Your task to perform on an android device: turn on priority inbox in the gmail app Image 0: 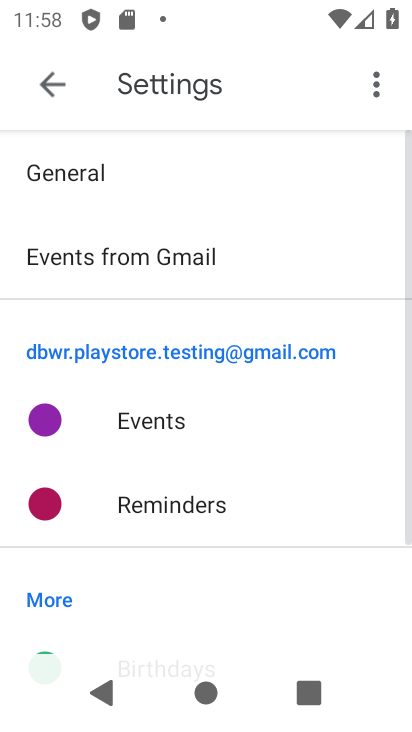
Step 0: press home button
Your task to perform on an android device: turn on priority inbox in the gmail app Image 1: 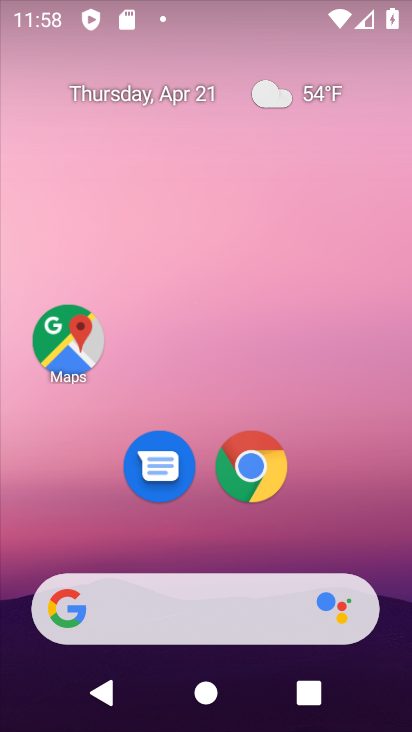
Step 1: drag from (322, 368) to (263, 61)
Your task to perform on an android device: turn on priority inbox in the gmail app Image 2: 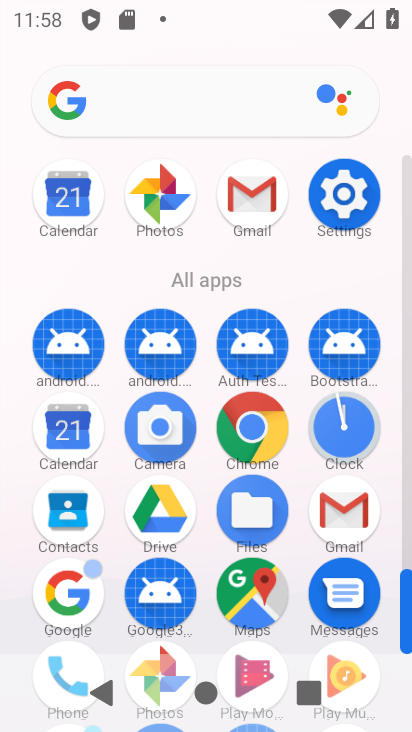
Step 2: click (265, 208)
Your task to perform on an android device: turn on priority inbox in the gmail app Image 3: 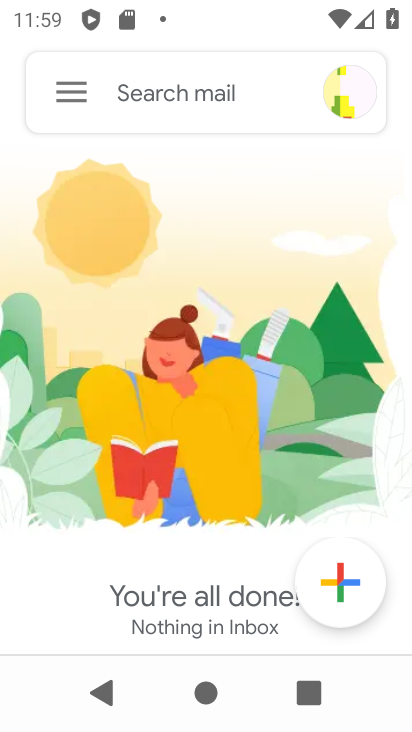
Step 3: click (75, 89)
Your task to perform on an android device: turn on priority inbox in the gmail app Image 4: 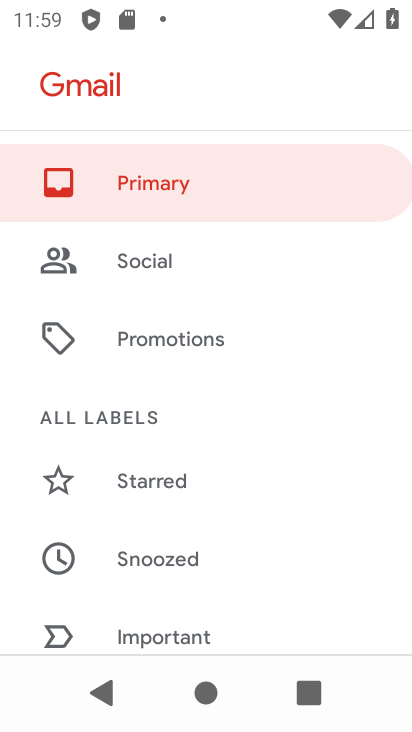
Step 4: drag from (317, 586) to (308, 69)
Your task to perform on an android device: turn on priority inbox in the gmail app Image 5: 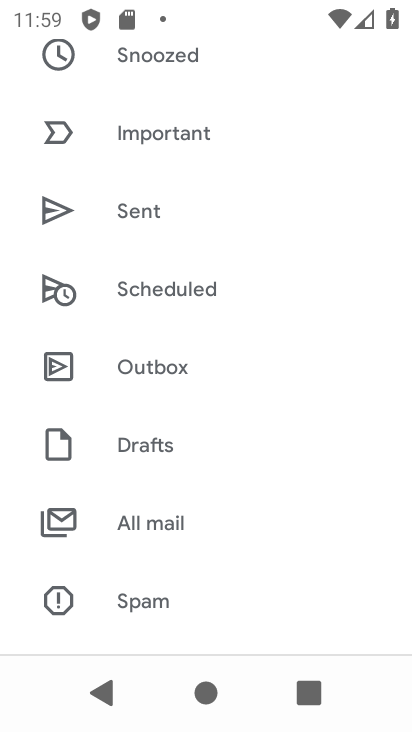
Step 5: drag from (262, 559) to (264, 167)
Your task to perform on an android device: turn on priority inbox in the gmail app Image 6: 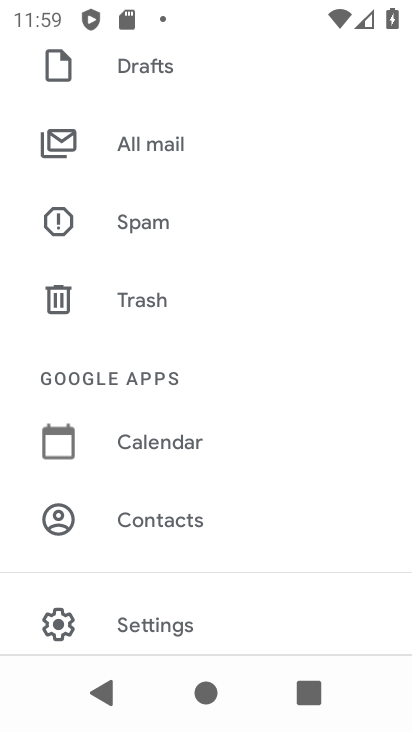
Step 6: click (173, 627)
Your task to perform on an android device: turn on priority inbox in the gmail app Image 7: 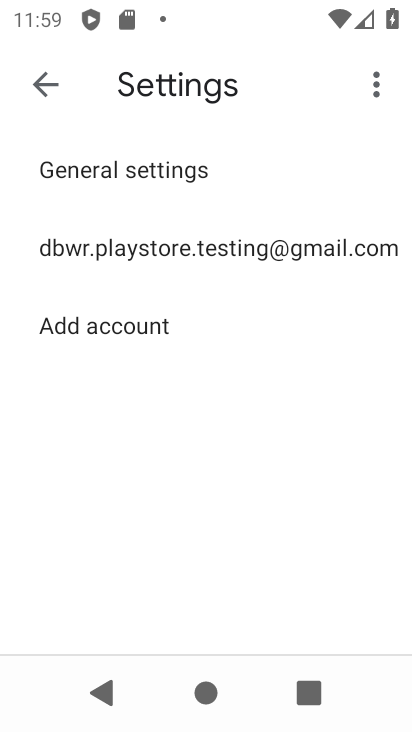
Step 7: click (190, 253)
Your task to perform on an android device: turn on priority inbox in the gmail app Image 8: 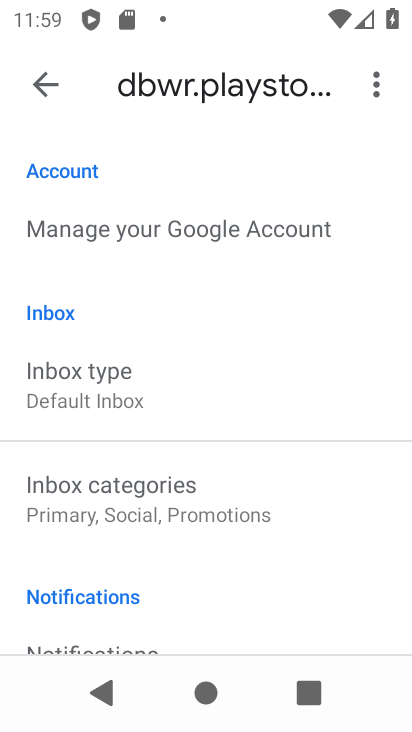
Step 8: click (96, 397)
Your task to perform on an android device: turn on priority inbox in the gmail app Image 9: 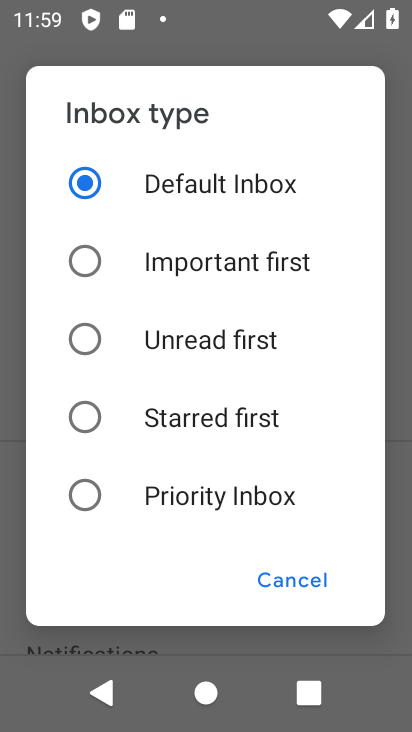
Step 9: click (142, 492)
Your task to perform on an android device: turn on priority inbox in the gmail app Image 10: 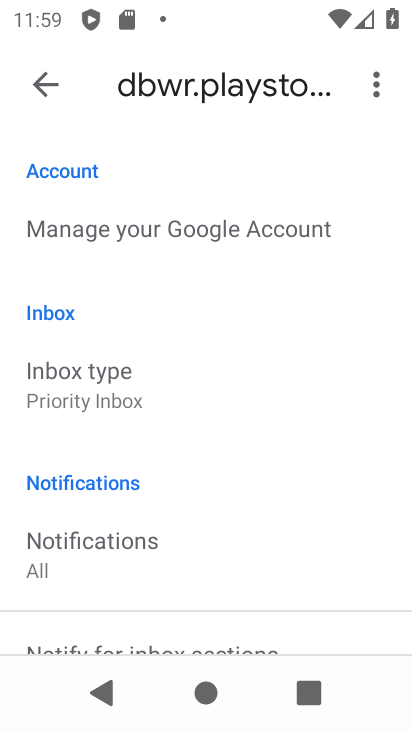
Step 10: task complete